Your task to perform on an android device: Search for Mexican restaurants on Maps Image 0: 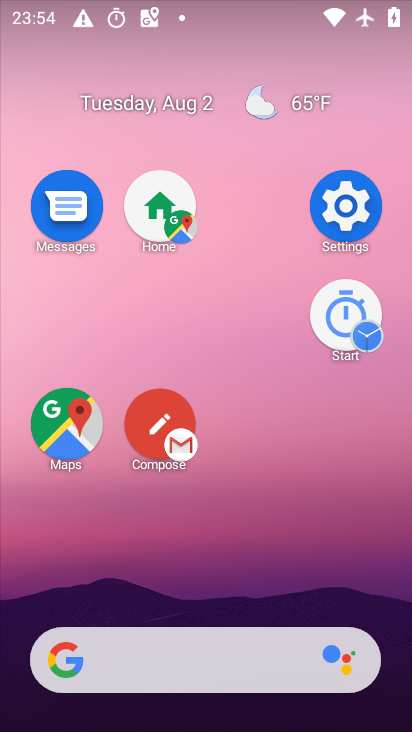
Step 0: drag from (298, 520) to (289, 266)
Your task to perform on an android device: Search for Mexican restaurants on Maps Image 1: 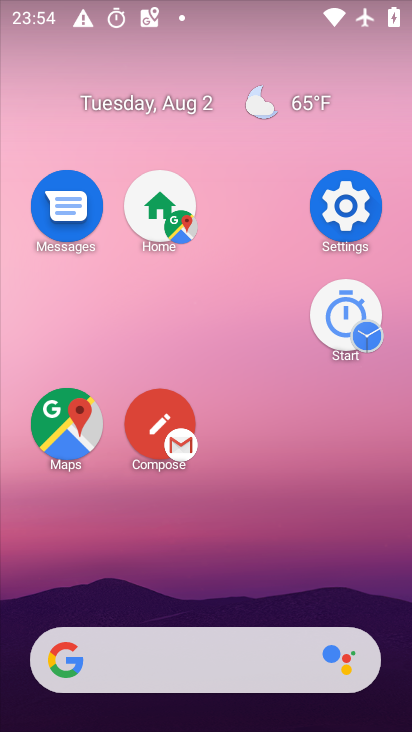
Step 1: click (356, 214)
Your task to perform on an android device: Search for Mexican restaurants on Maps Image 2: 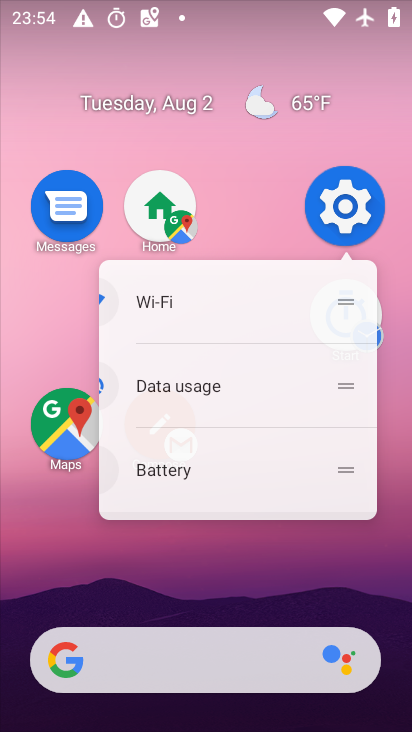
Step 2: click (351, 208)
Your task to perform on an android device: Search for Mexican restaurants on Maps Image 3: 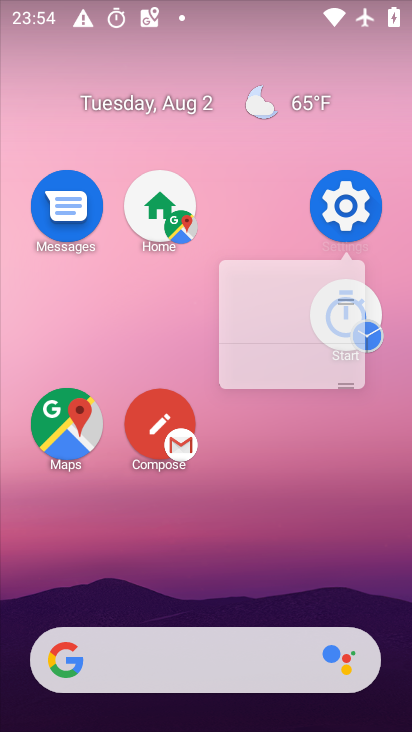
Step 3: click (351, 208)
Your task to perform on an android device: Search for Mexican restaurants on Maps Image 4: 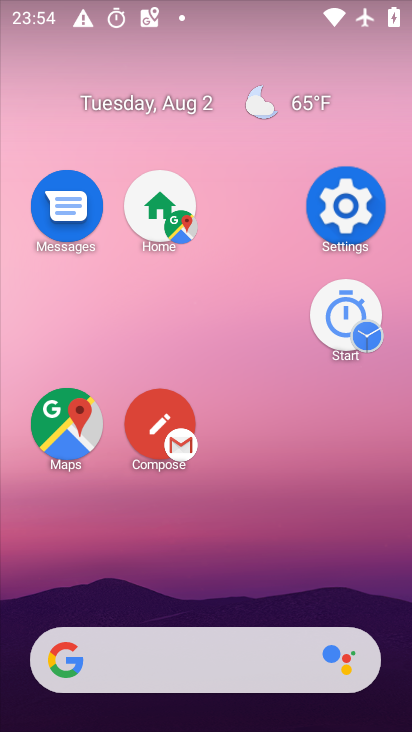
Step 4: click (351, 208)
Your task to perform on an android device: Search for Mexican restaurants on Maps Image 5: 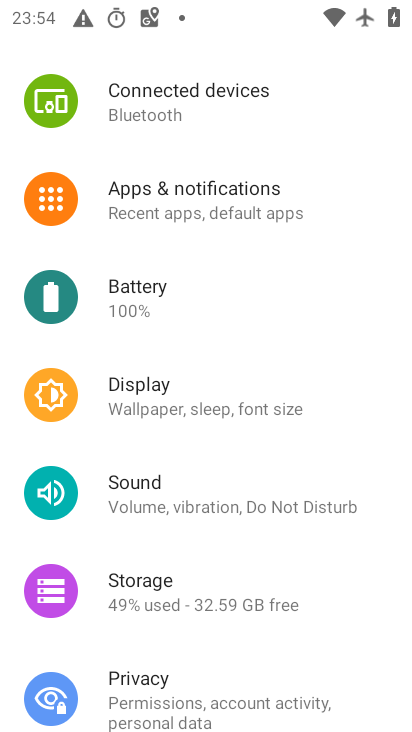
Step 5: drag from (155, 100) to (173, 559)
Your task to perform on an android device: Search for Mexican restaurants on Maps Image 6: 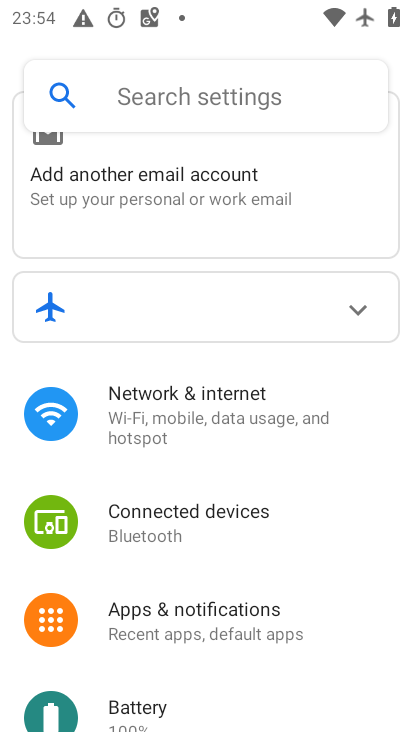
Step 6: click (194, 400)
Your task to perform on an android device: Search for Mexican restaurants on Maps Image 7: 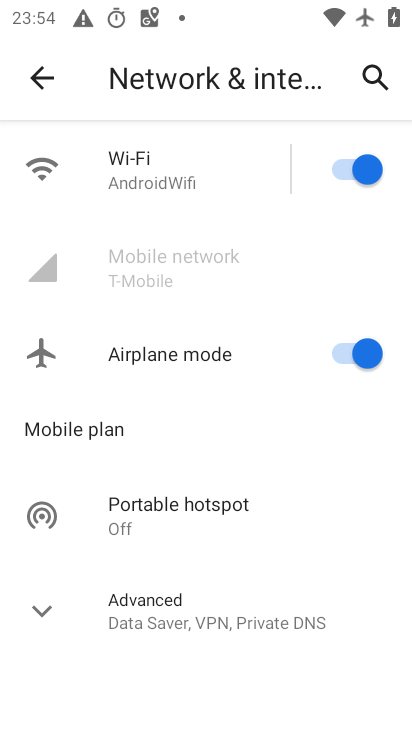
Step 7: click (363, 353)
Your task to perform on an android device: Search for Mexican restaurants on Maps Image 8: 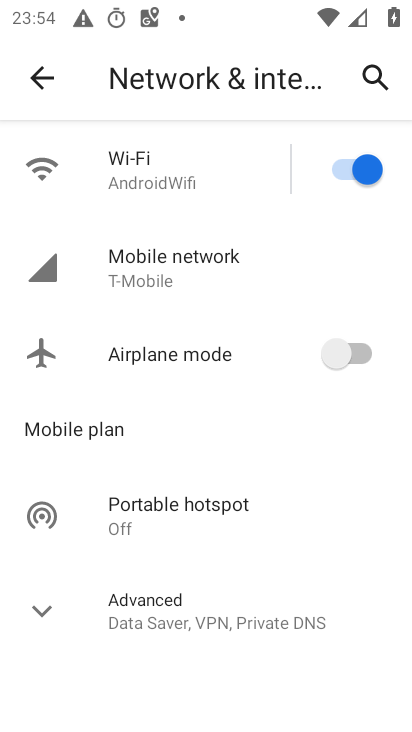
Step 8: press back button
Your task to perform on an android device: Search for Mexican restaurants on Maps Image 9: 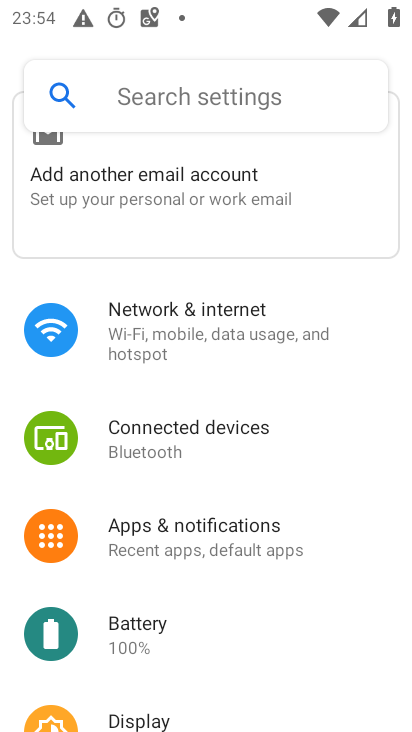
Step 9: press back button
Your task to perform on an android device: Search for Mexican restaurants on Maps Image 10: 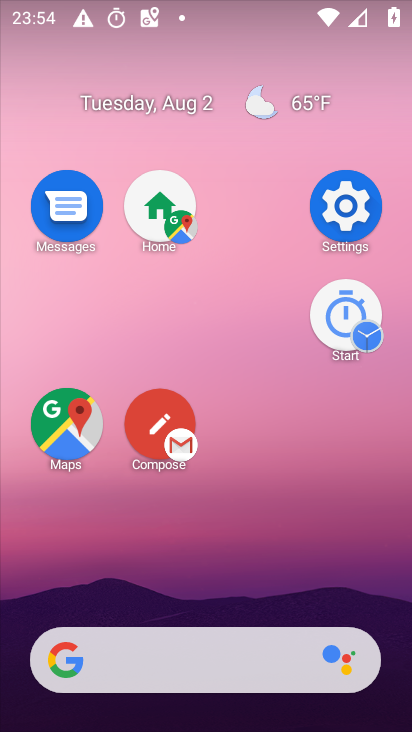
Step 10: drag from (245, 700) to (232, 180)
Your task to perform on an android device: Search for Mexican restaurants on Maps Image 11: 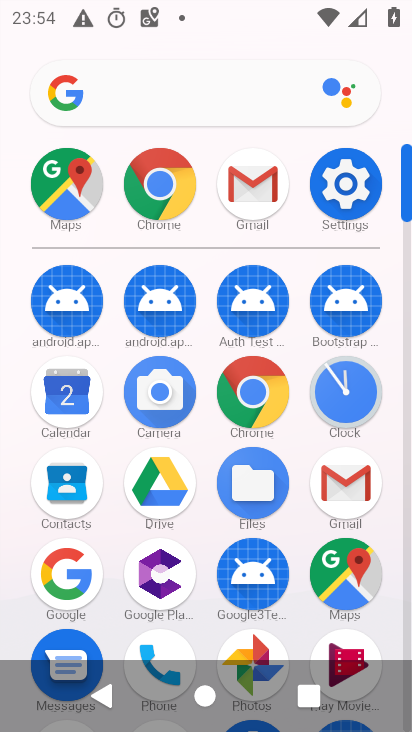
Step 11: click (88, 181)
Your task to perform on an android device: Search for Mexican restaurants on Maps Image 12: 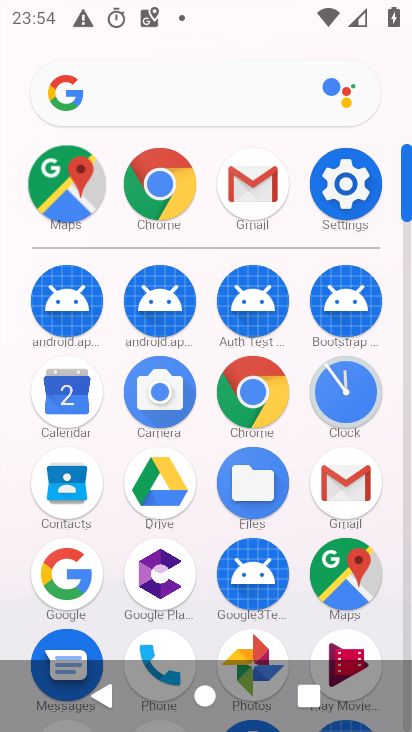
Step 12: click (55, 196)
Your task to perform on an android device: Search for Mexican restaurants on Maps Image 13: 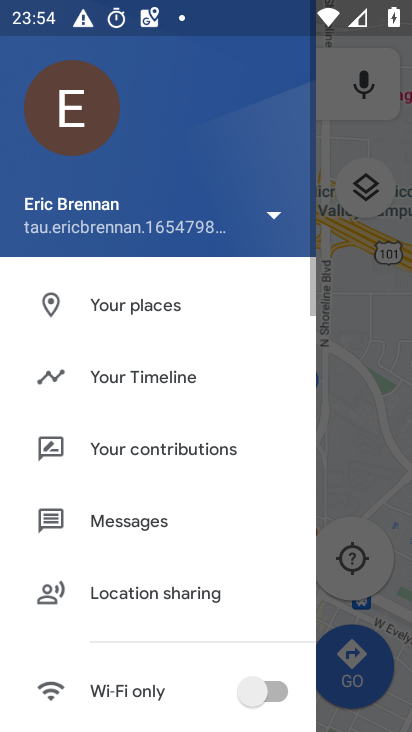
Step 13: click (315, 331)
Your task to perform on an android device: Search for Mexican restaurants on Maps Image 14: 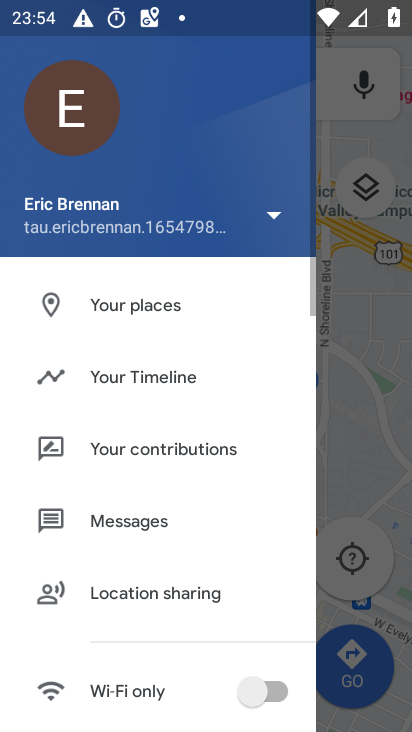
Step 14: click (345, 366)
Your task to perform on an android device: Search for Mexican restaurants on Maps Image 15: 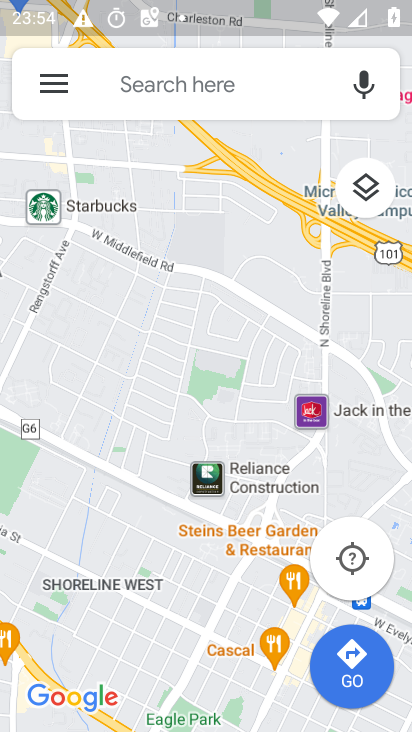
Step 15: click (155, 95)
Your task to perform on an android device: Search for Mexican restaurants on Maps Image 16: 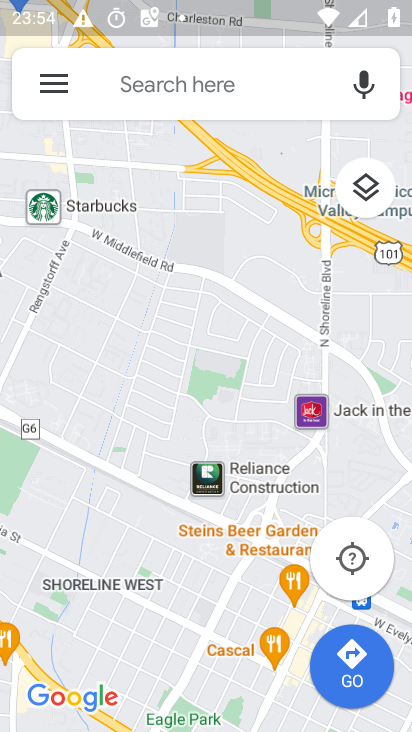
Step 16: click (141, 81)
Your task to perform on an android device: Search for Mexican restaurants on Maps Image 17: 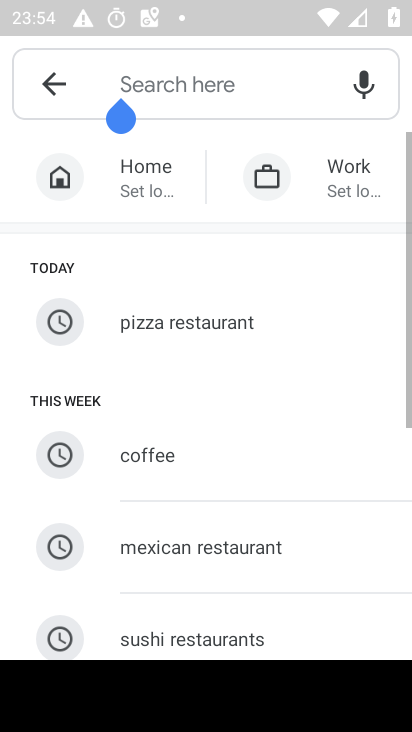
Step 17: click (141, 81)
Your task to perform on an android device: Search for Mexican restaurants on Maps Image 18: 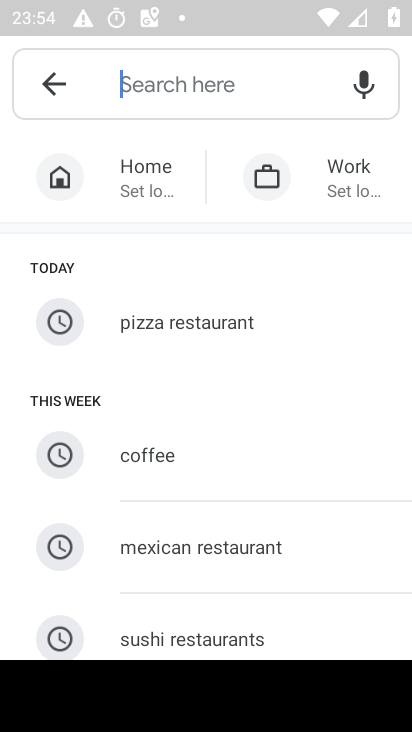
Step 18: click (214, 552)
Your task to perform on an android device: Search for Mexican restaurants on Maps Image 19: 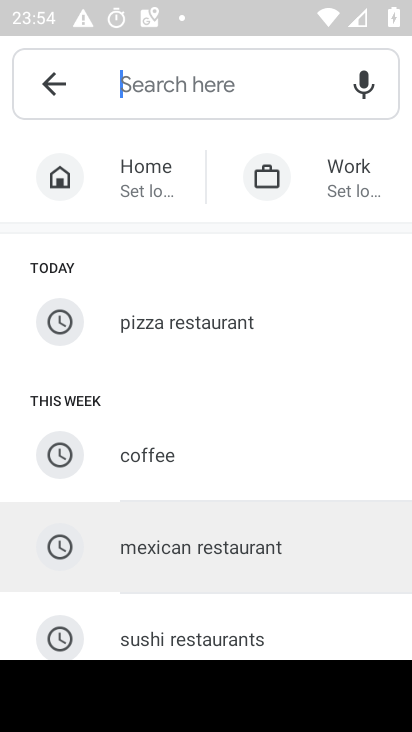
Step 19: click (212, 552)
Your task to perform on an android device: Search for Mexican restaurants on Maps Image 20: 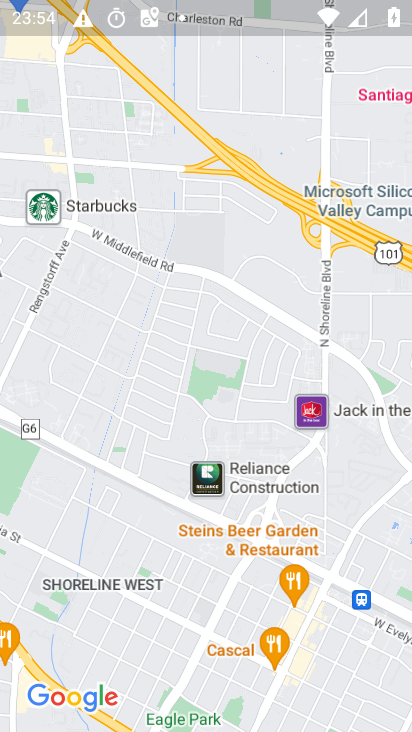
Step 20: task complete